Your task to perform on an android device: Go to Reddit.com Image 0: 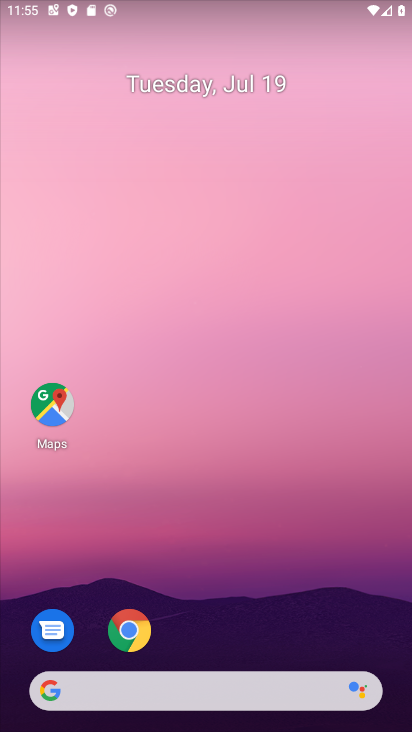
Step 0: drag from (284, 539) to (310, 259)
Your task to perform on an android device: Go to Reddit.com Image 1: 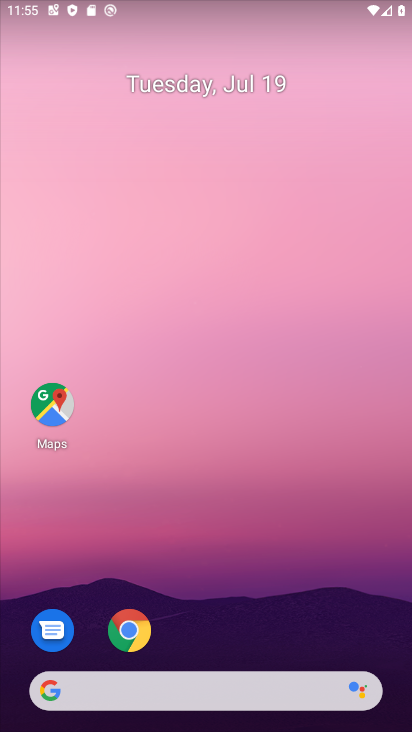
Step 1: drag from (246, 537) to (119, 66)
Your task to perform on an android device: Go to Reddit.com Image 2: 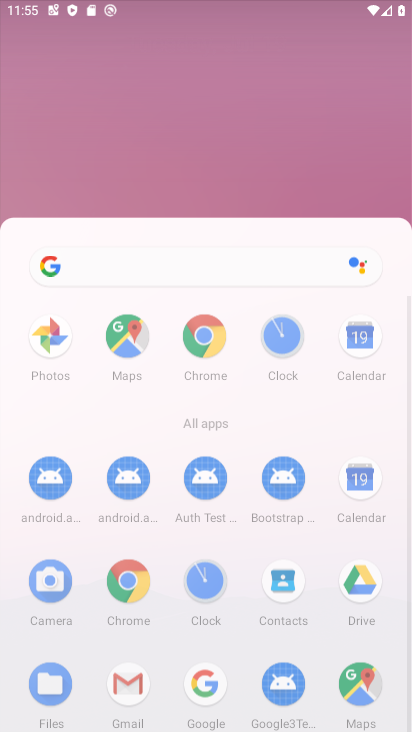
Step 2: drag from (173, 513) to (186, 120)
Your task to perform on an android device: Go to Reddit.com Image 3: 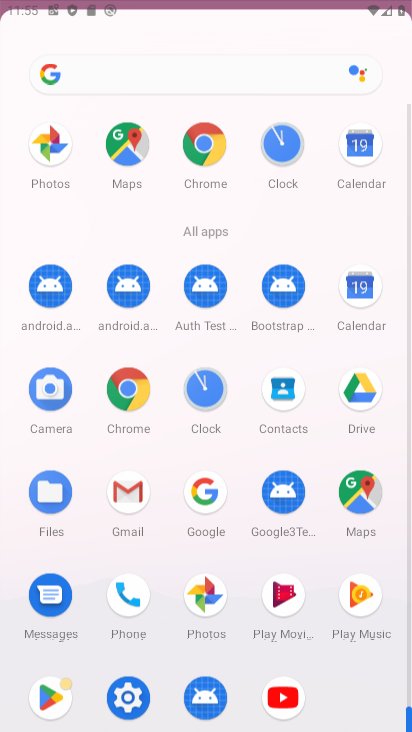
Step 3: drag from (226, 286) to (236, 141)
Your task to perform on an android device: Go to Reddit.com Image 4: 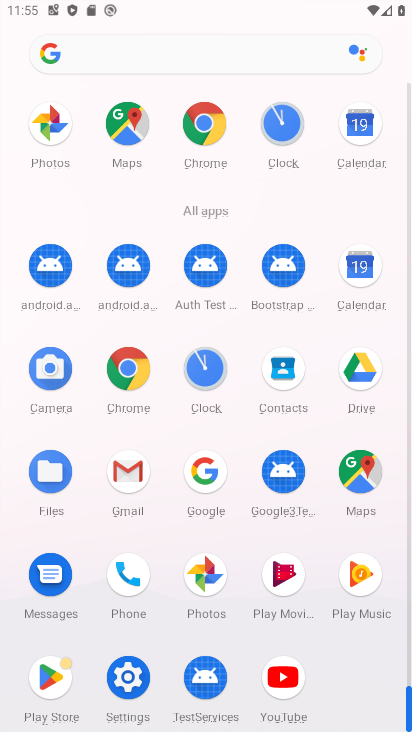
Step 4: click (207, 125)
Your task to perform on an android device: Go to Reddit.com Image 5: 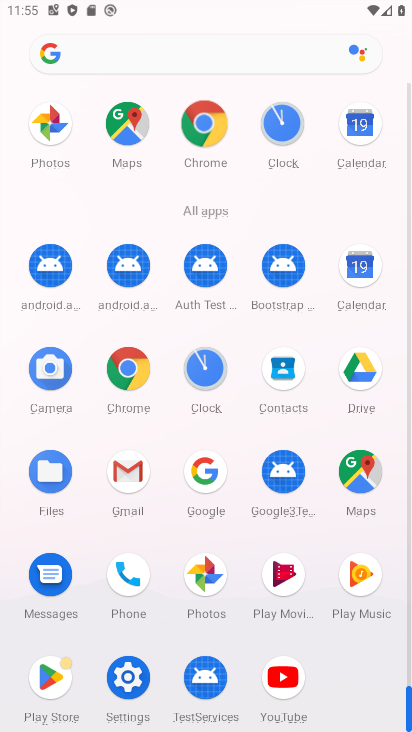
Step 5: click (208, 124)
Your task to perform on an android device: Go to Reddit.com Image 6: 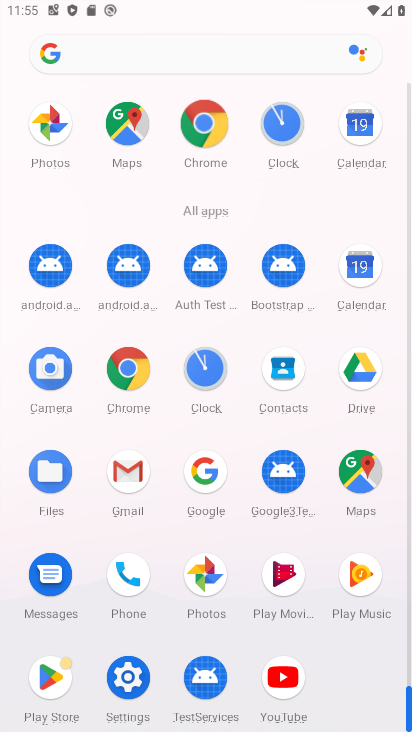
Step 6: click (209, 125)
Your task to perform on an android device: Go to Reddit.com Image 7: 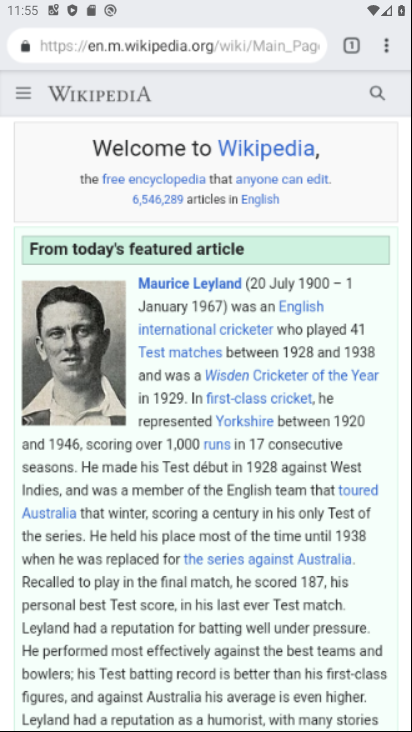
Step 7: click (214, 129)
Your task to perform on an android device: Go to Reddit.com Image 8: 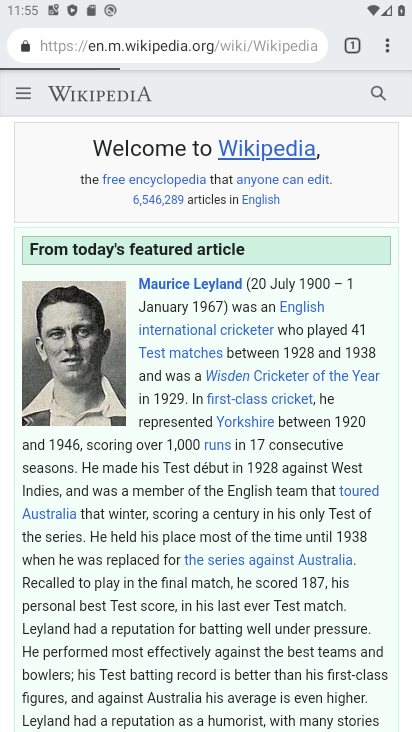
Step 8: drag from (377, 34) to (235, 73)
Your task to perform on an android device: Go to Reddit.com Image 9: 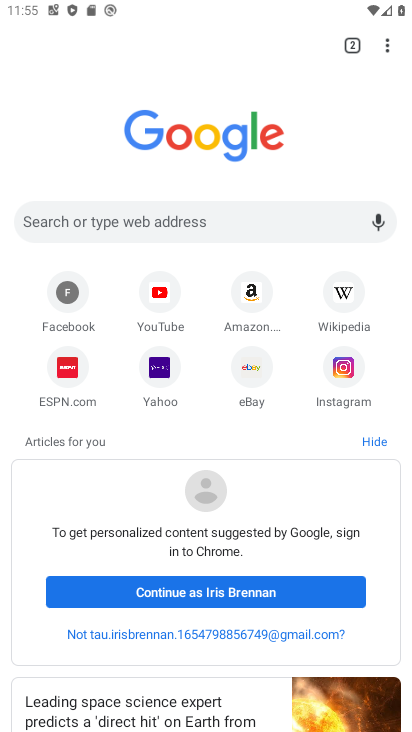
Step 9: click (116, 210)
Your task to perform on an android device: Go to Reddit.com Image 10: 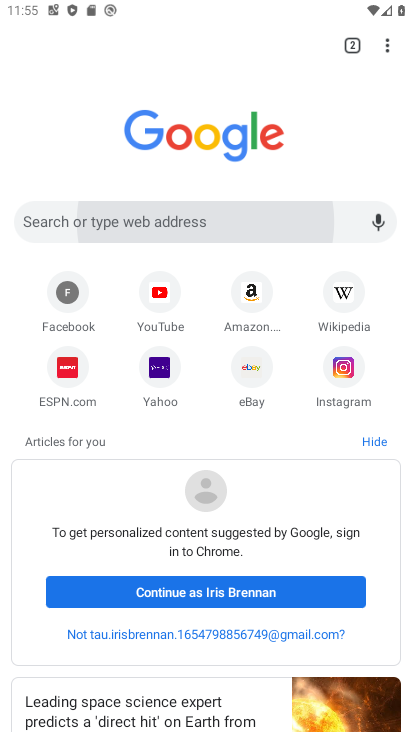
Step 10: click (112, 216)
Your task to perform on an android device: Go to Reddit.com Image 11: 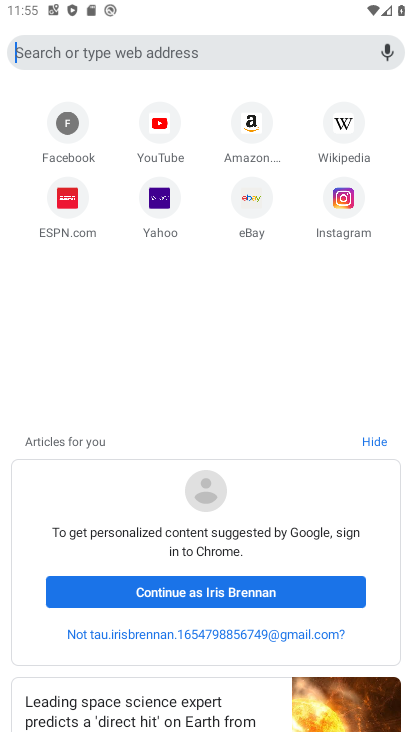
Step 11: click (112, 216)
Your task to perform on an android device: Go to Reddit.com Image 12: 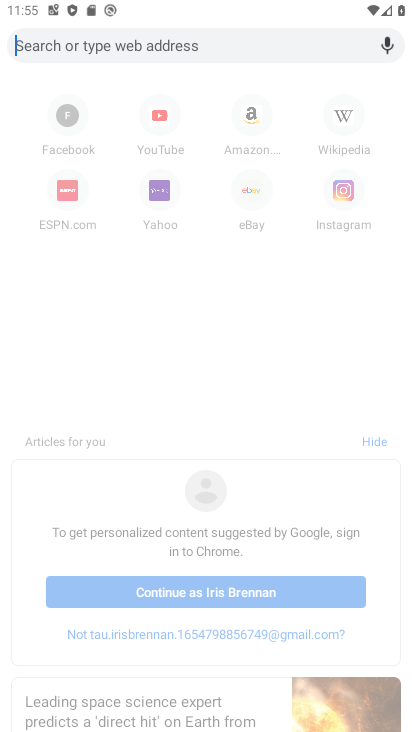
Step 12: click (114, 217)
Your task to perform on an android device: Go to Reddit.com Image 13: 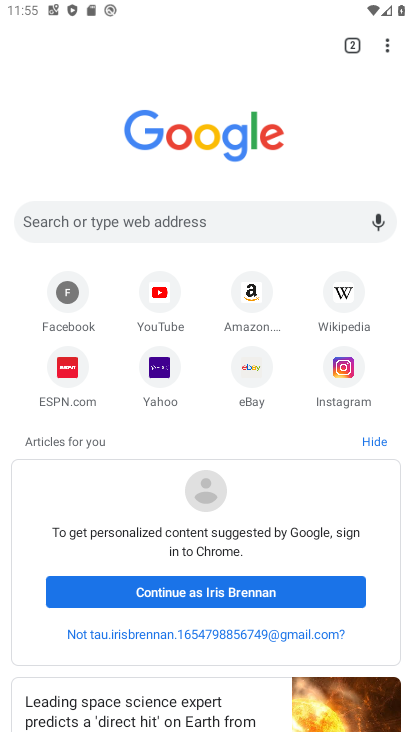
Step 13: click (82, 214)
Your task to perform on an android device: Go to Reddit.com Image 14: 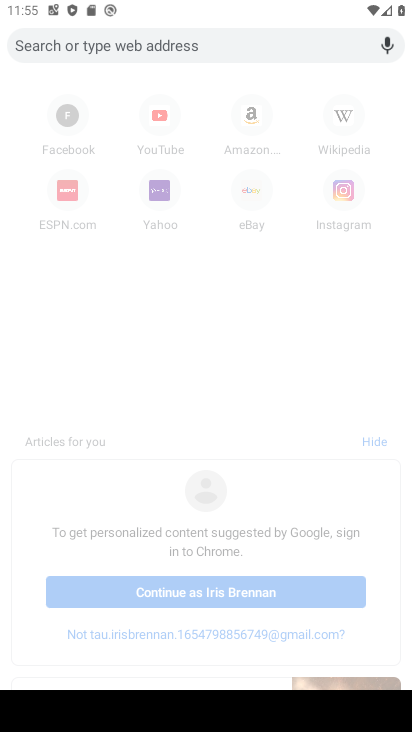
Step 14: type "Reddit.com"
Your task to perform on an android device: Go to Reddit.com Image 15: 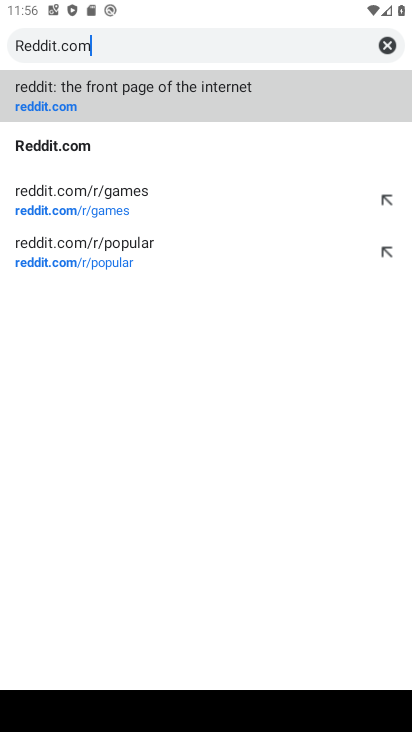
Step 15: click (35, 100)
Your task to perform on an android device: Go to Reddit.com Image 16: 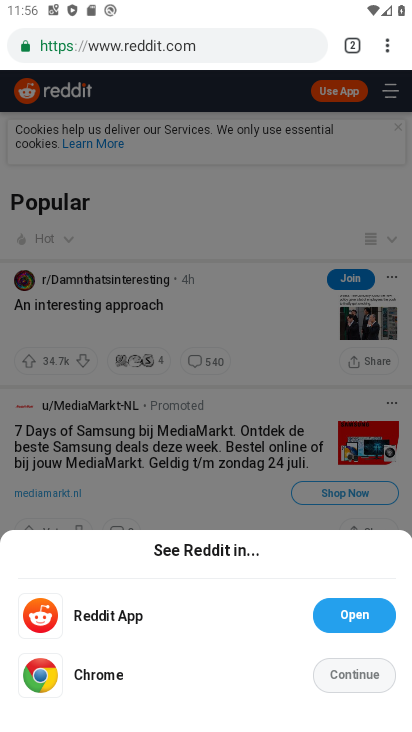
Step 16: click (372, 612)
Your task to perform on an android device: Go to Reddit.com Image 17: 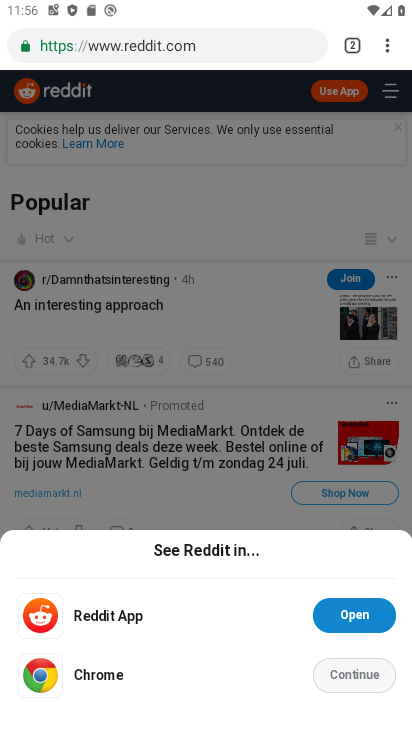
Step 17: click (377, 612)
Your task to perform on an android device: Go to Reddit.com Image 18: 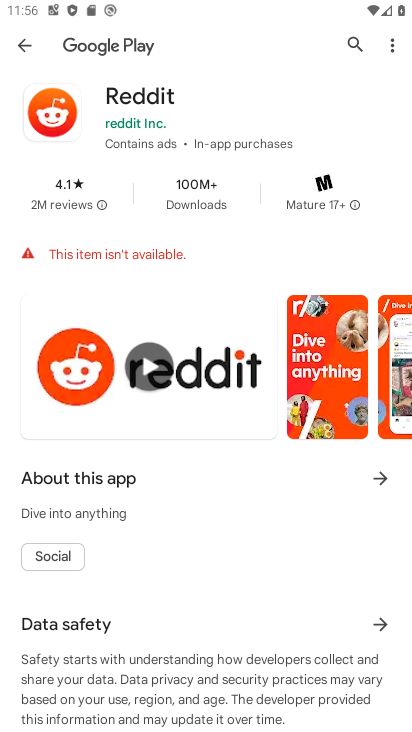
Step 18: task complete